Your task to perform on an android device: stop showing notifications on the lock screen Image 0: 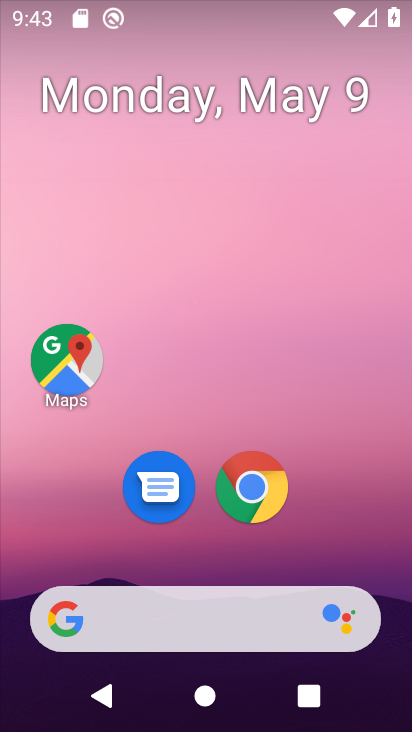
Step 0: drag from (333, 545) to (126, 11)
Your task to perform on an android device: stop showing notifications on the lock screen Image 1: 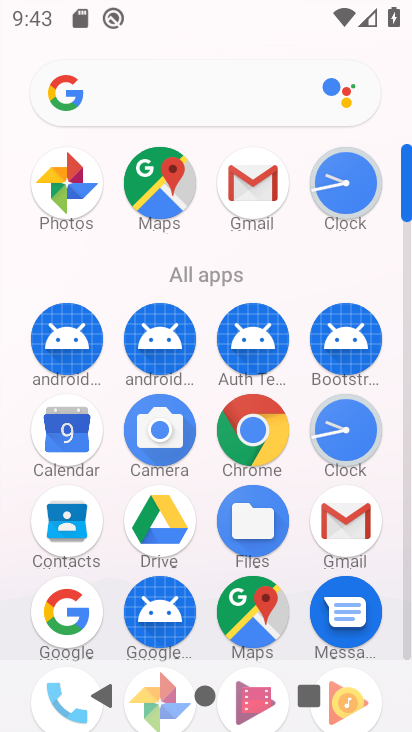
Step 1: drag from (9, 579) to (11, 267)
Your task to perform on an android device: stop showing notifications on the lock screen Image 2: 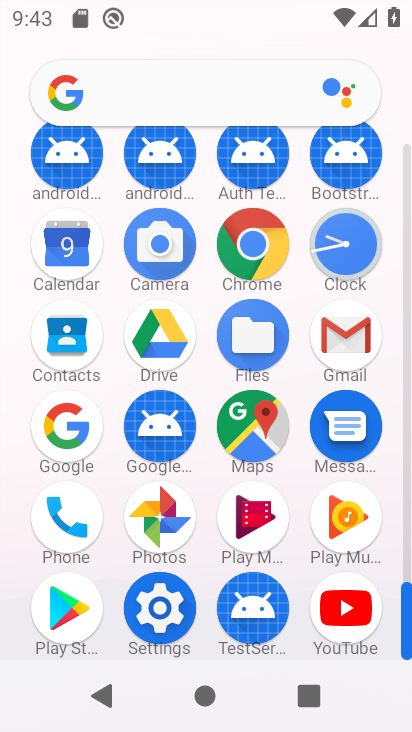
Step 2: click (157, 606)
Your task to perform on an android device: stop showing notifications on the lock screen Image 3: 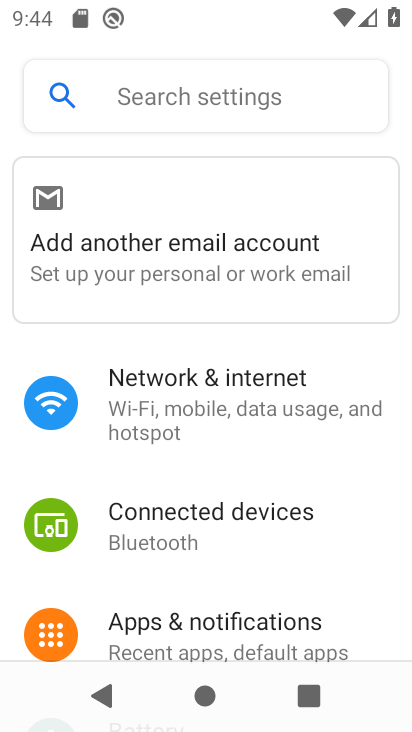
Step 3: click (209, 619)
Your task to perform on an android device: stop showing notifications on the lock screen Image 4: 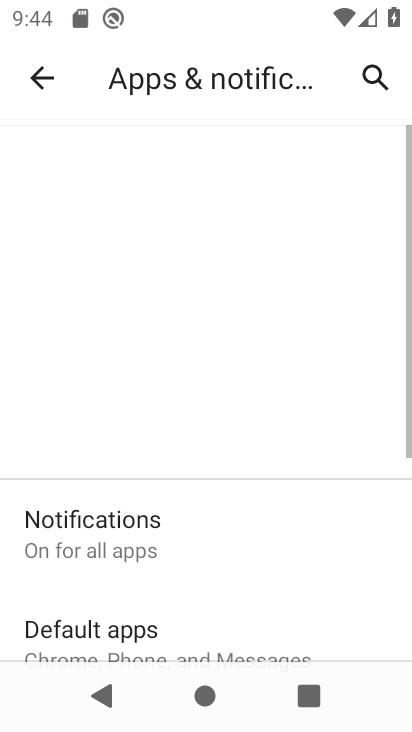
Step 4: drag from (216, 540) to (224, 125)
Your task to perform on an android device: stop showing notifications on the lock screen Image 5: 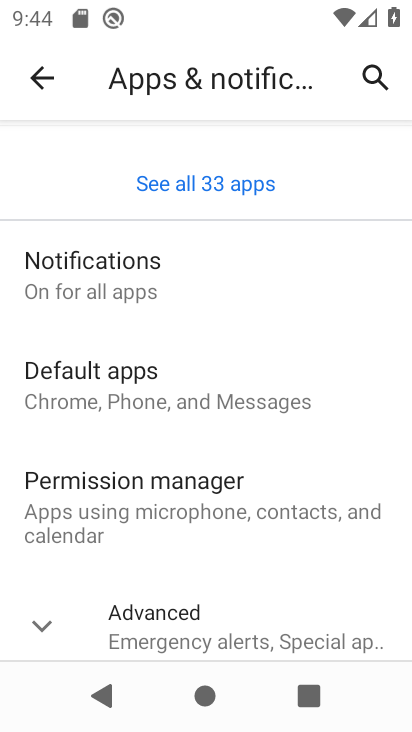
Step 5: click (164, 277)
Your task to perform on an android device: stop showing notifications on the lock screen Image 6: 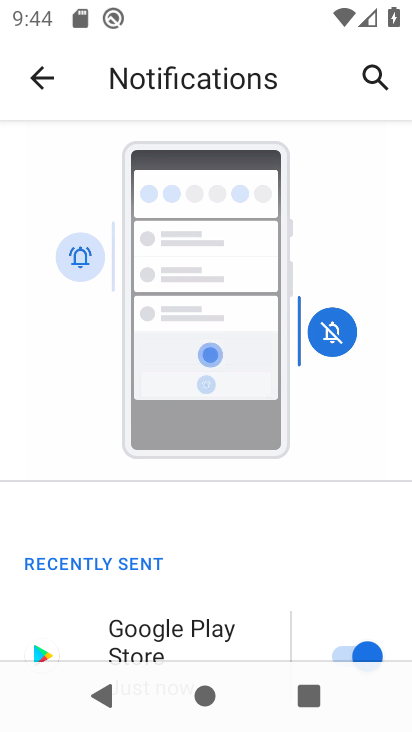
Step 6: drag from (186, 580) to (233, 130)
Your task to perform on an android device: stop showing notifications on the lock screen Image 7: 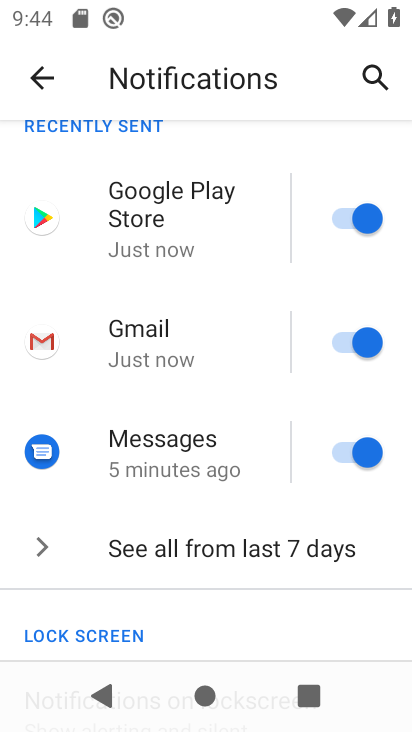
Step 7: drag from (116, 590) to (169, 160)
Your task to perform on an android device: stop showing notifications on the lock screen Image 8: 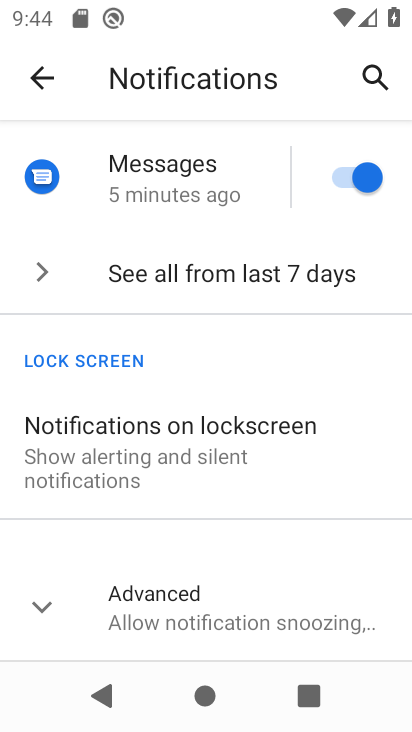
Step 8: click (174, 450)
Your task to perform on an android device: stop showing notifications on the lock screen Image 9: 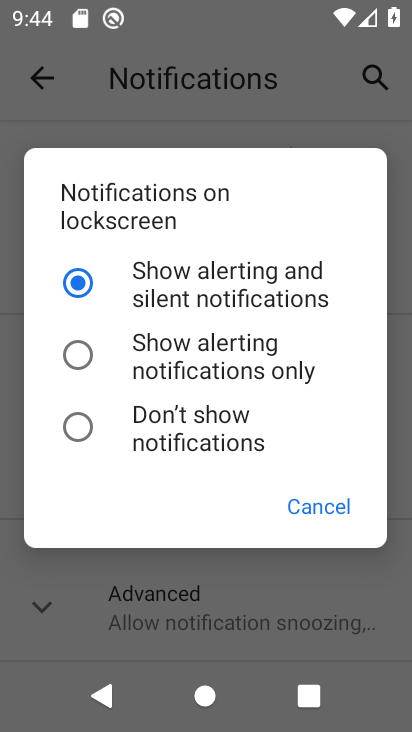
Step 9: click (171, 428)
Your task to perform on an android device: stop showing notifications on the lock screen Image 10: 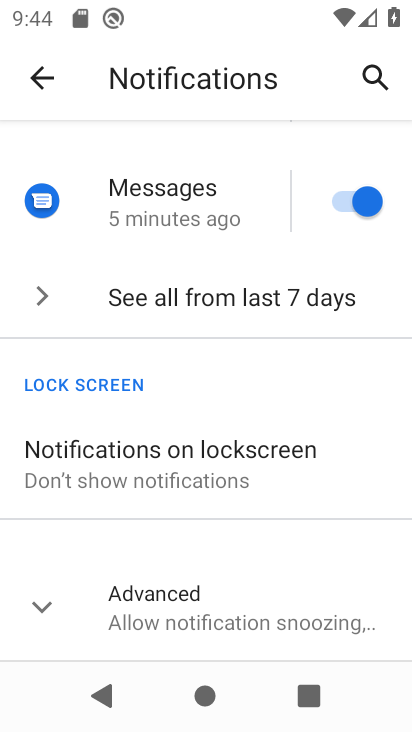
Step 10: task complete